Your task to perform on an android device: turn off smart reply in the gmail app Image 0: 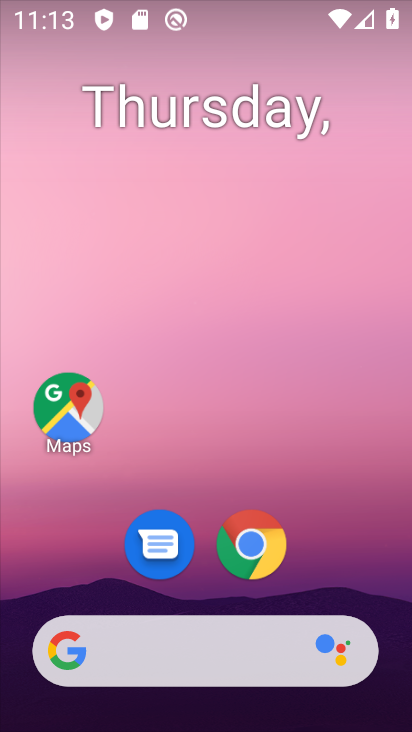
Step 0: drag from (214, 591) to (193, 32)
Your task to perform on an android device: turn off smart reply in the gmail app Image 1: 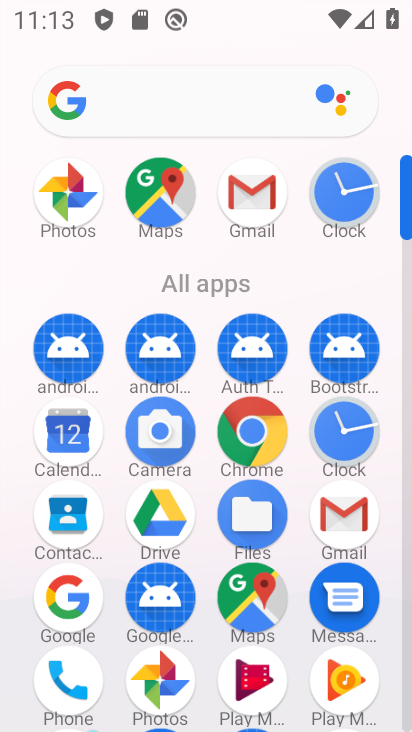
Step 1: click (354, 498)
Your task to perform on an android device: turn off smart reply in the gmail app Image 2: 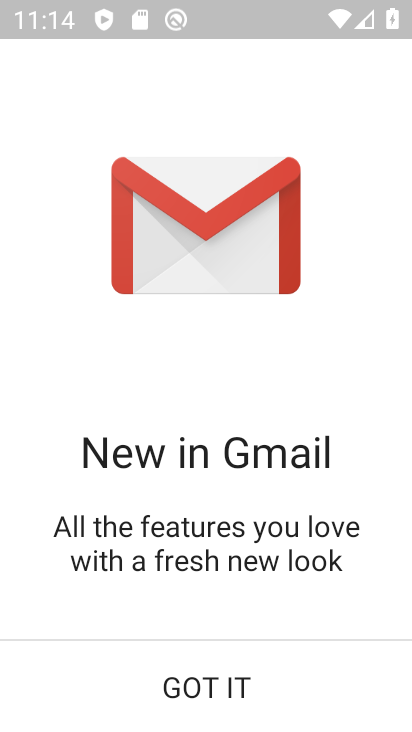
Step 2: click (173, 669)
Your task to perform on an android device: turn off smart reply in the gmail app Image 3: 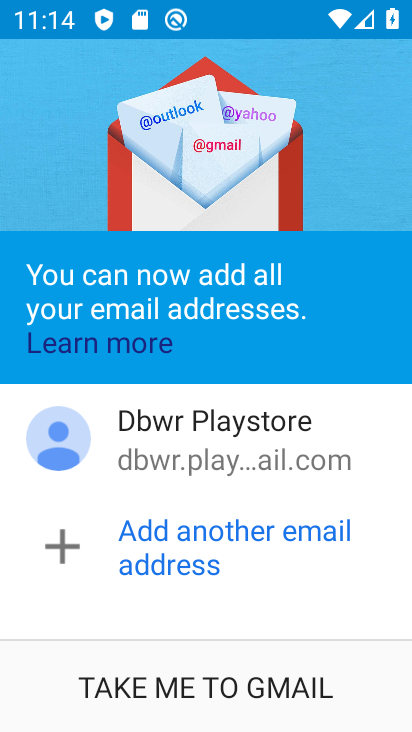
Step 3: click (231, 682)
Your task to perform on an android device: turn off smart reply in the gmail app Image 4: 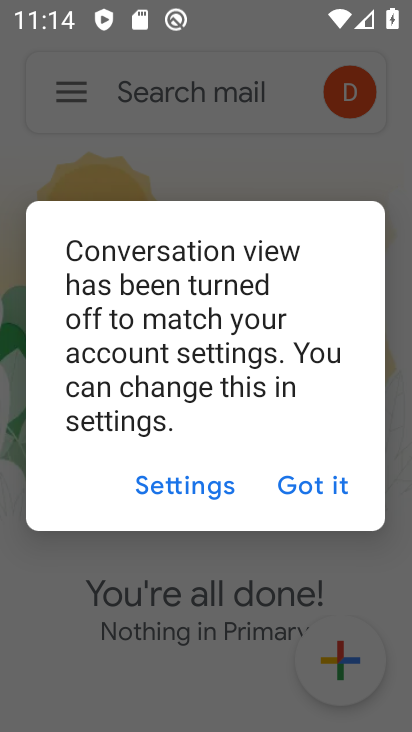
Step 4: click (286, 474)
Your task to perform on an android device: turn off smart reply in the gmail app Image 5: 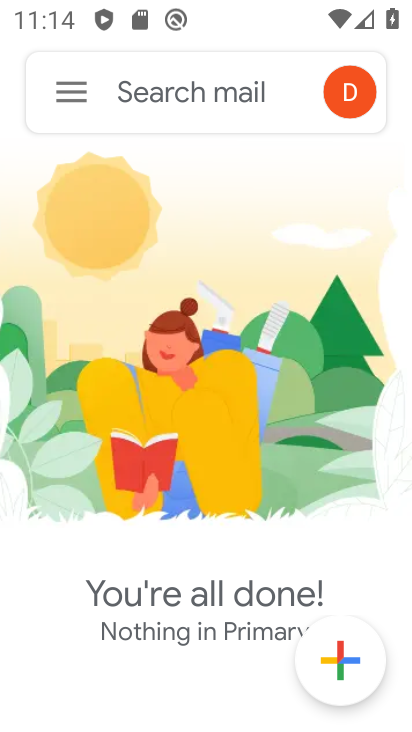
Step 5: click (55, 97)
Your task to perform on an android device: turn off smart reply in the gmail app Image 6: 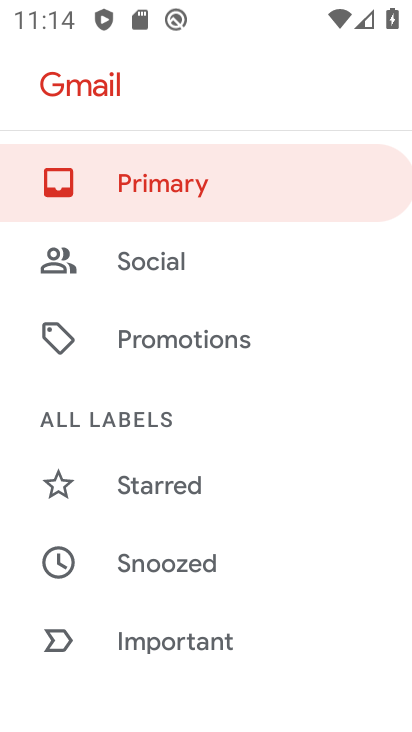
Step 6: drag from (139, 468) to (91, 5)
Your task to perform on an android device: turn off smart reply in the gmail app Image 7: 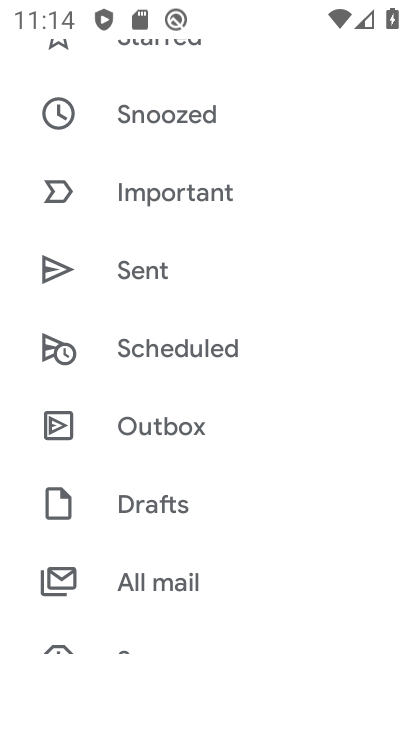
Step 7: drag from (177, 586) to (118, 17)
Your task to perform on an android device: turn off smart reply in the gmail app Image 8: 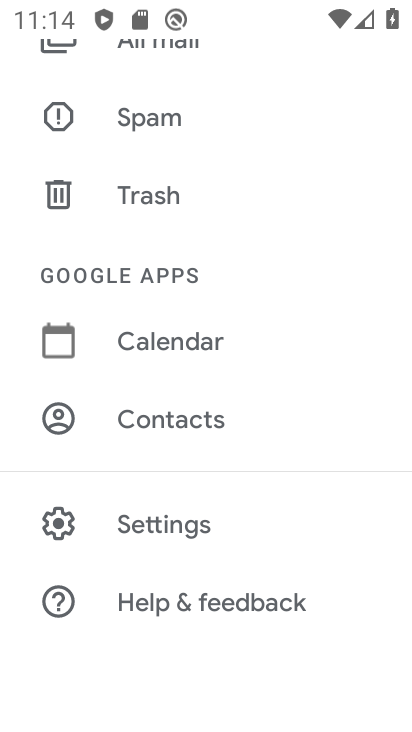
Step 8: click (153, 507)
Your task to perform on an android device: turn off smart reply in the gmail app Image 9: 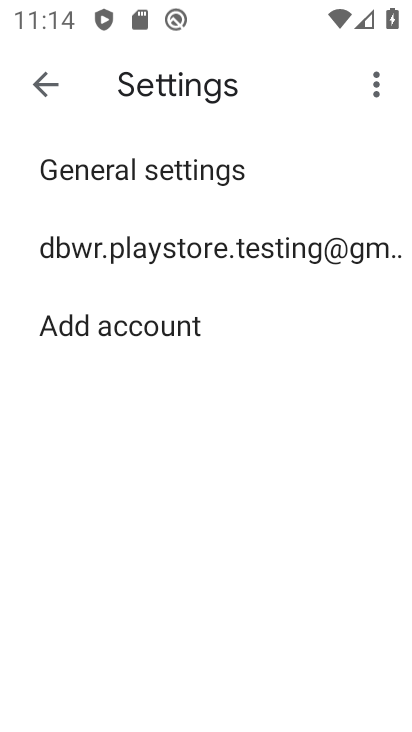
Step 9: click (123, 251)
Your task to perform on an android device: turn off smart reply in the gmail app Image 10: 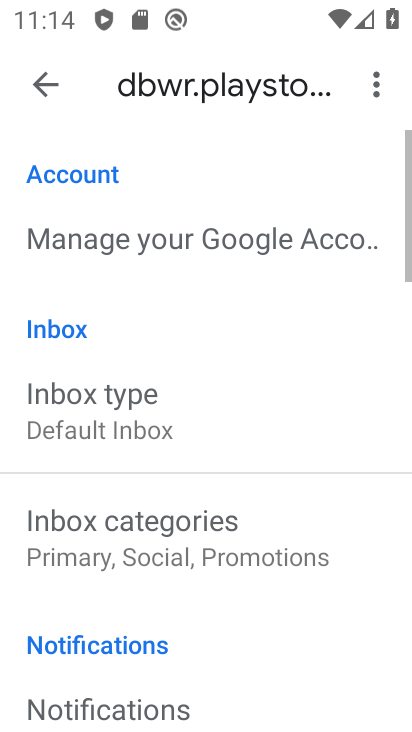
Step 10: drag from (212, 552) to (190, 154)
Your task to perform on an android device: turn off smart reply in the gmail app Image 11: 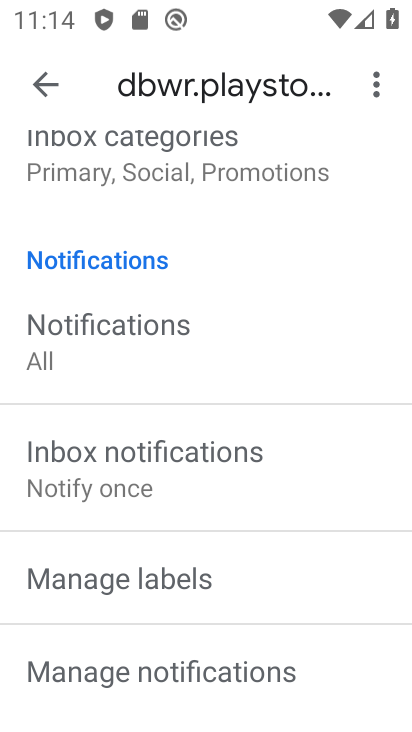
Step 11: drag from (223, 589) to (154, 117)
Your task to perform on an android device: turn off smart reply in the gmail app Image 12: 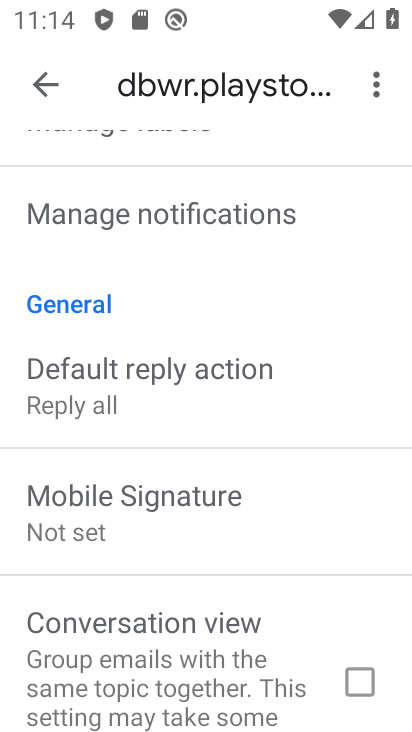
Step 12: drag from (213, 572) to (141, 108)
Your task to perform on an android device: turn off smart reply in the gmail app Image 13: 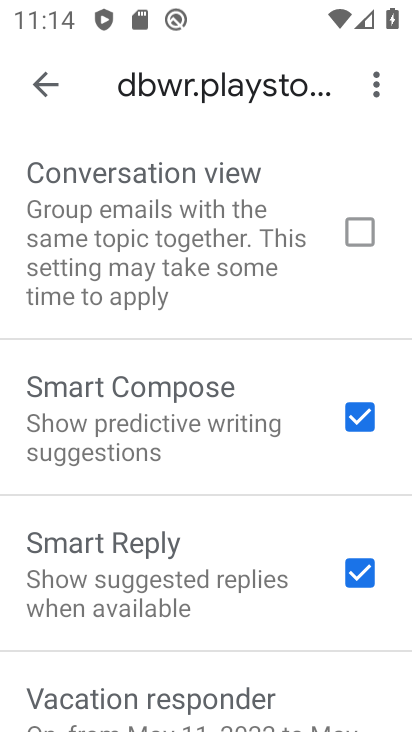
Step 13: click (359, 568)
Your task to perform on an android device: turn off smart reply in the gmail app Image 14: 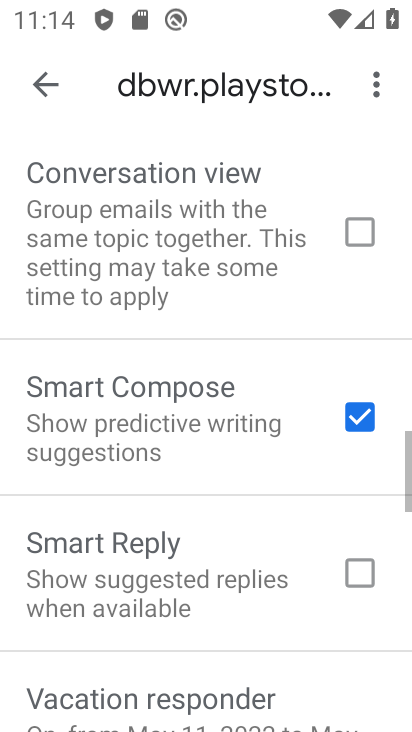
Step 14: task complete